Your task to perform on an android device: toggle airplane mode Image 0: 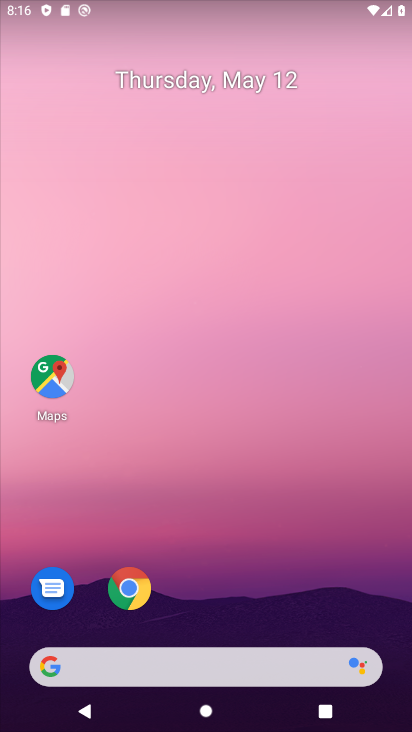
Step 0: drag from (209, 645) to (290, 146)
Your task to perform on an android device: toggle airplane mode Image 1: 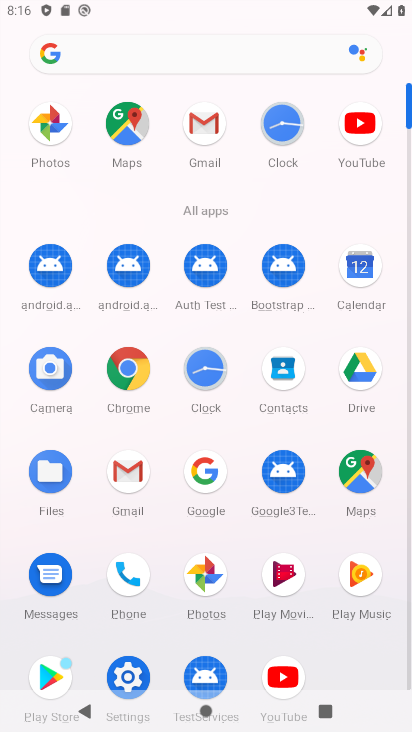
Step 1: click (133, 678)
Your task to perform on an android device: toggle airplane mode Image 2: 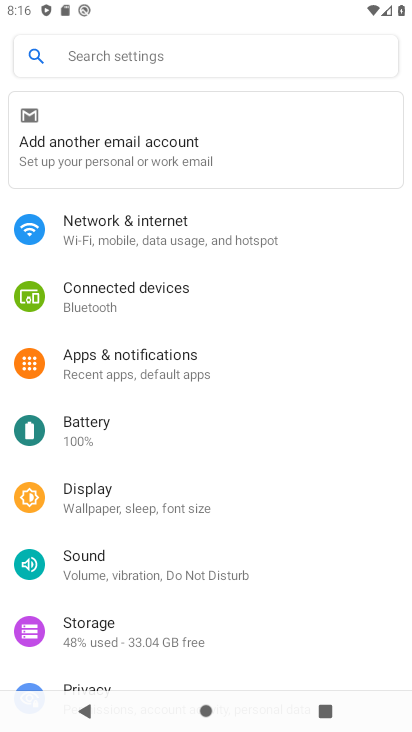
Step 2: click (205, 245)
Your task to perform on an android device: toggle airplane mode Image 3: 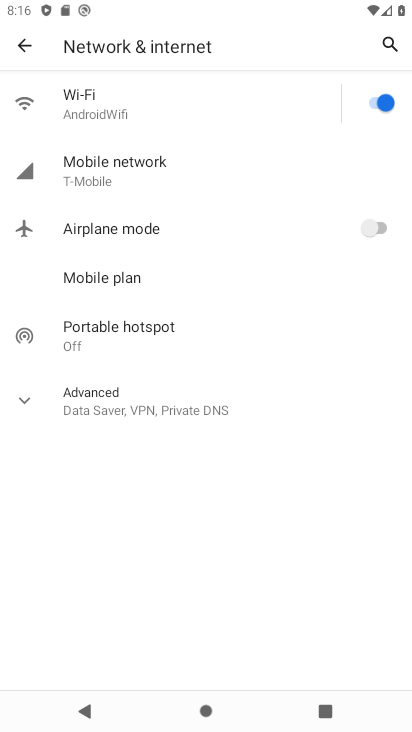
Step 3: click (389, 220)
Your task to perform on an android device: toggle airplane mode Image 4: 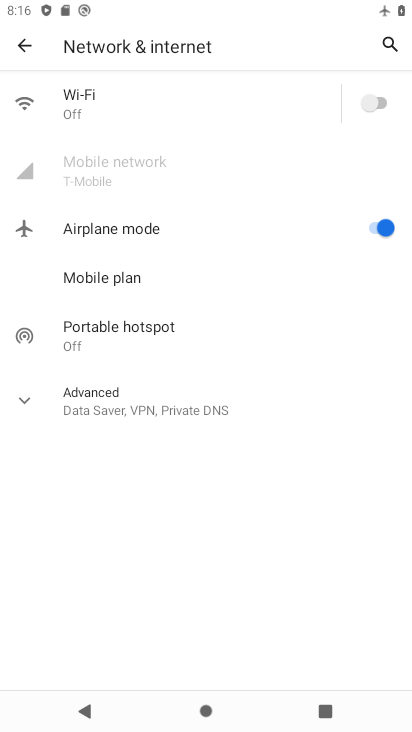
Step 4: task complete